Your task to perform on an android device: Go to Maps Image 0: 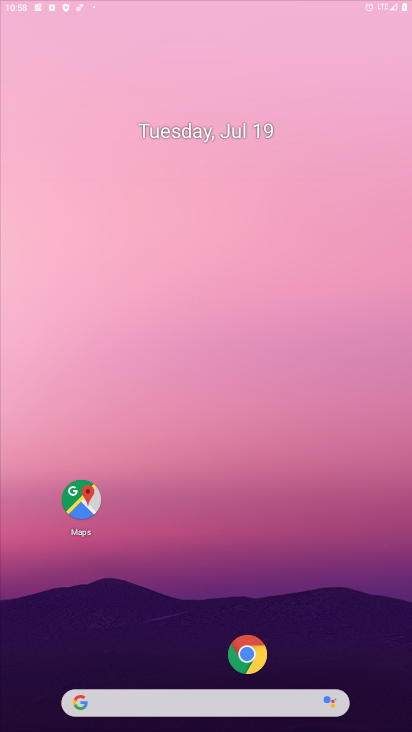
Step 0: click (102, 217)
Your task to perform on an android device: Go to Maps Image 1: 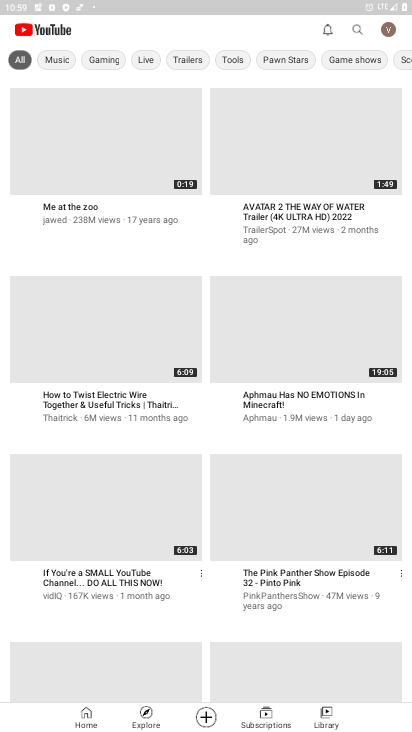
Step 1: press home button
Your task to perform on an android device: Go to Maps Image 2: 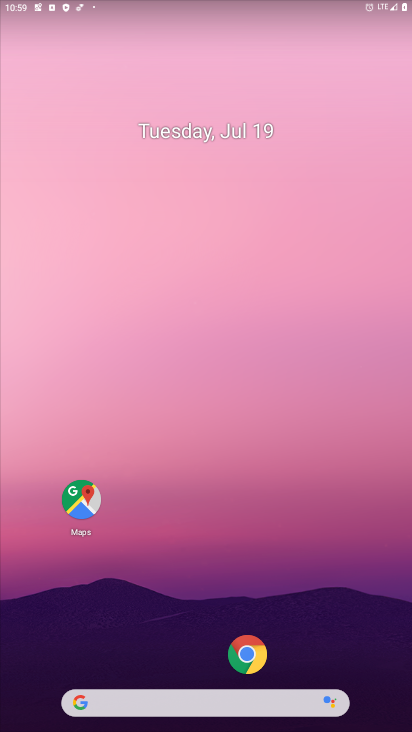
Step 2: click (83, 504)
Your task to perform on an android device: Go to Maps Image 3: 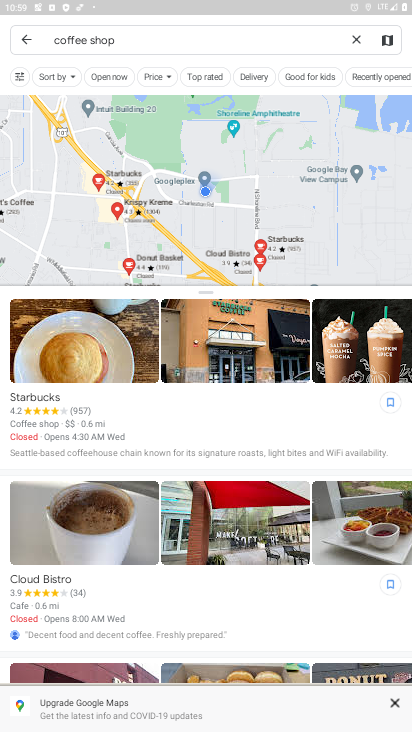
Step 3: task complete